Your task to perform on an android device: Clear the cart on target. Search for "duracell triple a" on target, select the first entry, add it to the cart, then select checkout. Image 0: 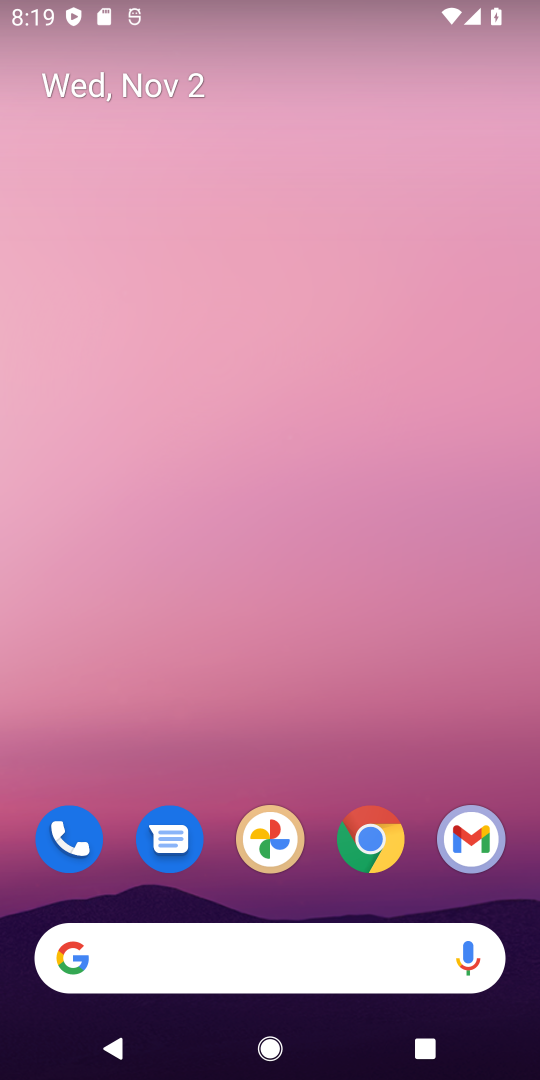
Step 0: click (370, 840)
Your task to perform on an android device: Clear the cart on target. Search for "duracell triple a" on target, select the first entry, add it to the cart, then select checkout. Image 1: 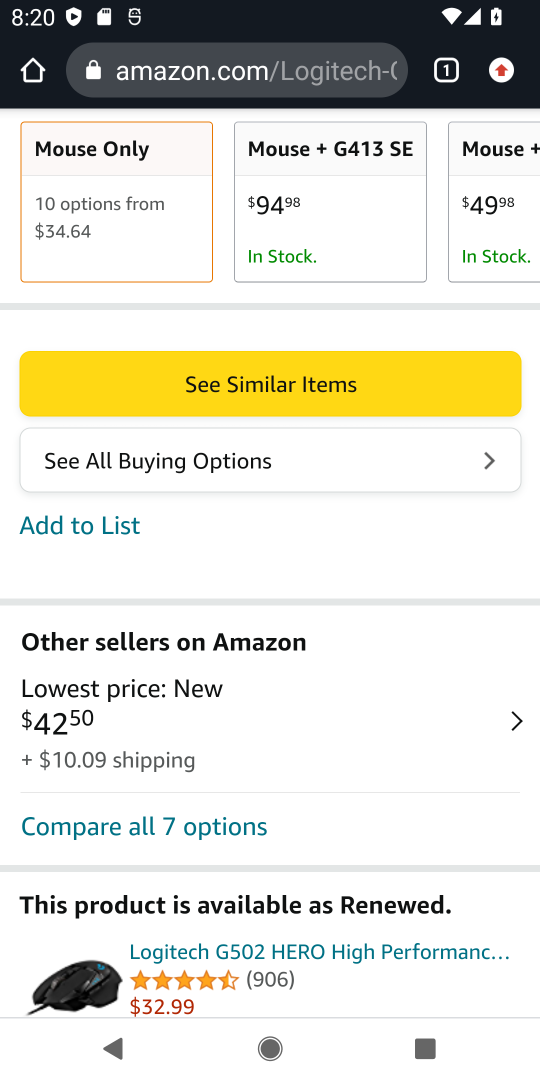
Step 1: click (328, 67)
Your task to perform on an android device: Clear the cart on target. Search for "duracell triple a" on target, select the first entry, add it to the cart, then select checkout. Image 2: 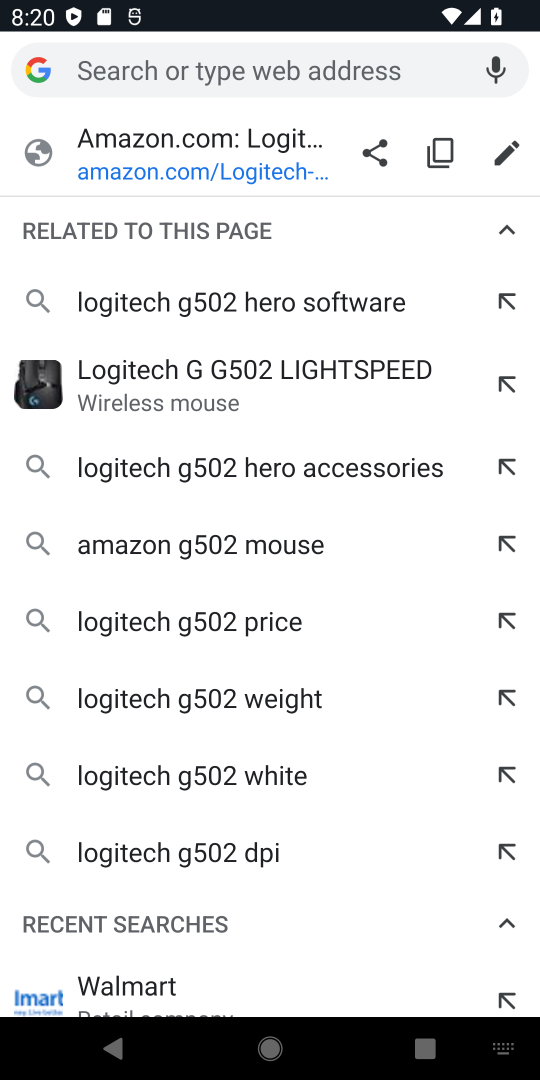
Step 2: type "target"
Your task to perform on an android device: Clear the cart on target. Search for "duracell triple a" on target, select the first entry, add it to the cart, then select checkout. Image 3: 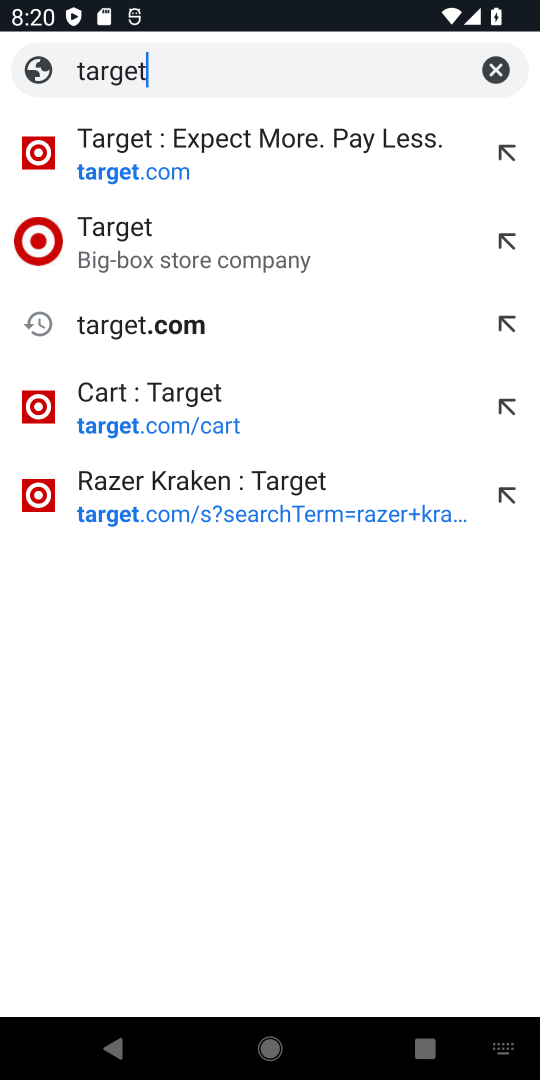
Step 3: click (168, 243)
Your task to perform on an android device: Clear the cart on target. Search for "duracell triple a" on target, select the first entry, add it to the cart, then select checkout. Image 4: 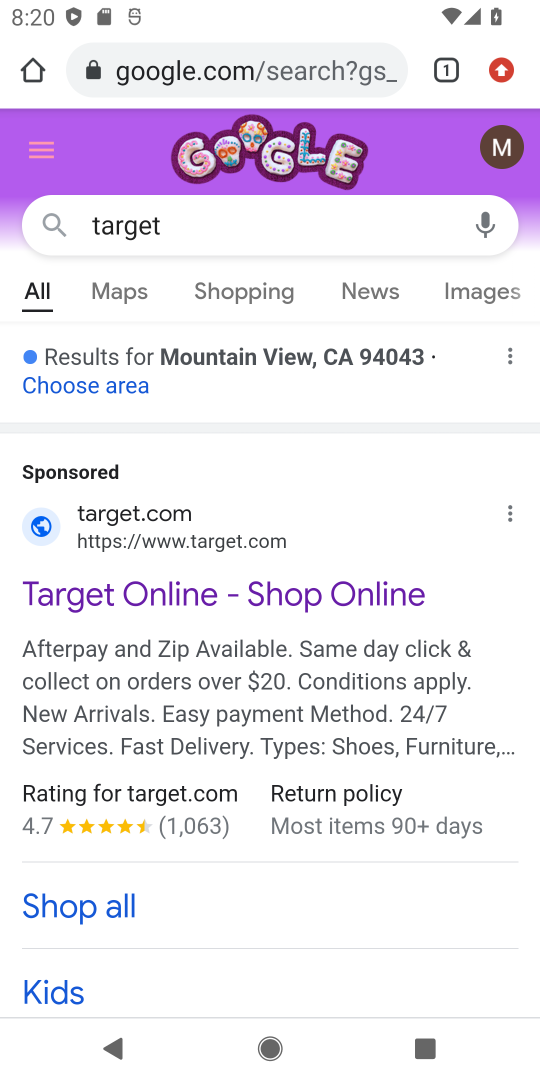
Step 4: drag from (284, 897) to (303, 434)
Your task to perform on an android device: Clear the cart on target. Search for "duracell triple a" on target, select the first entry, add it to the cart, then select checkout. Image 5: 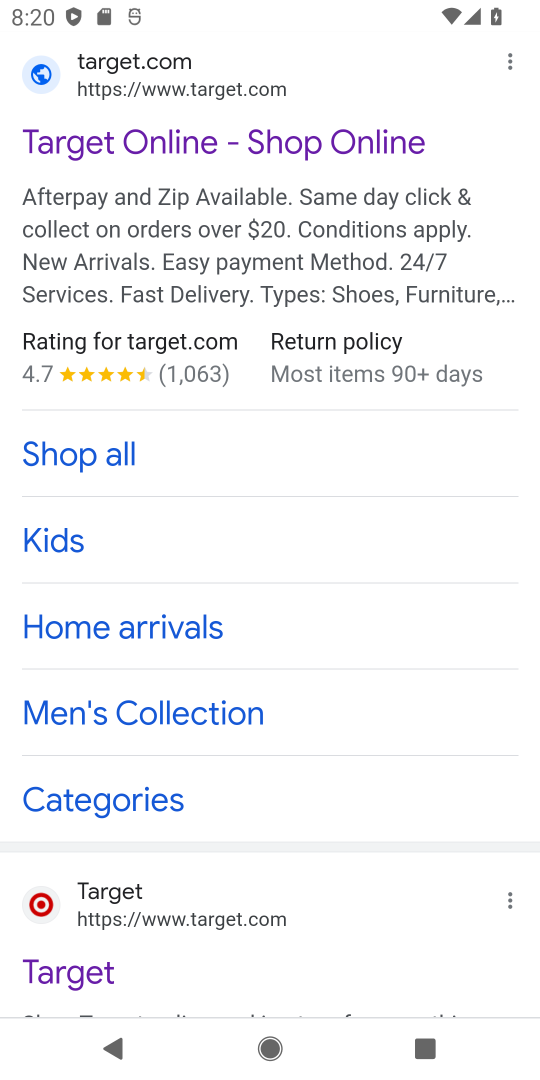
Step 5: drag from (248, 967) to (317, 583)
Your task to perform on an android device: Clear the cart on target. Search for "duracell triple a" on target, select the first entry, add it to the cart, then select checkout. Image 6: 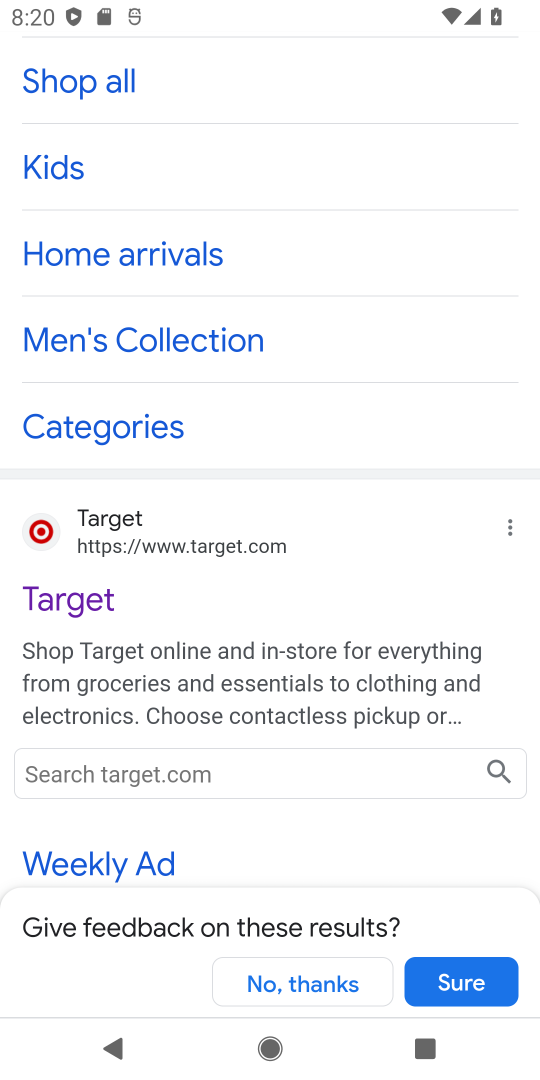
Step 6: click (226, 582)
Your task to perform on an android device: Clear the cart on target. Search for "duracell triple a" on target, select the first entry, add it to the cart, then select checkout. Image 7: 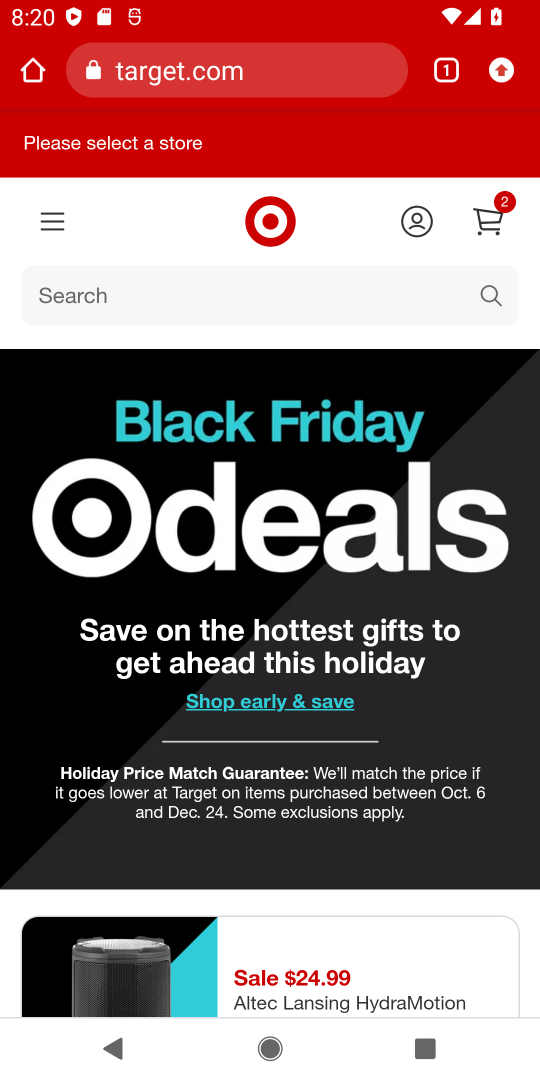
Step 7: click (493, 218)
Your task to perform on an android device: Clear the cart on target. Search for "duracell triple a" on target, select the first entry, add it to the cart, then select checkout. Image 8: 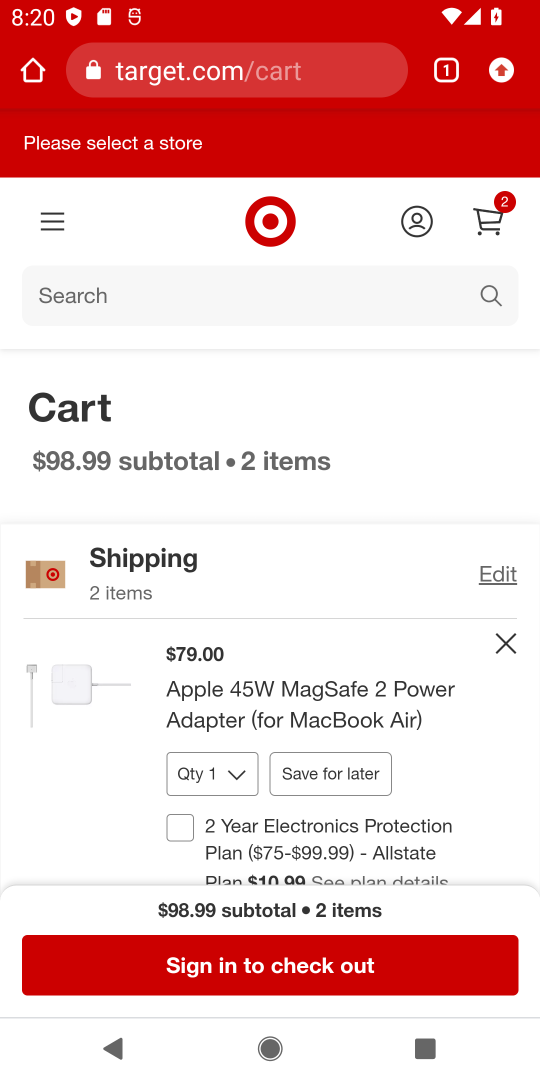
Step 8: click (506, 636)
Your task to perform on an android device: Clear the cart on target. Search for "duracell triple a" on target, select the first entry, add it to the cart, then select checkout. Image 9: 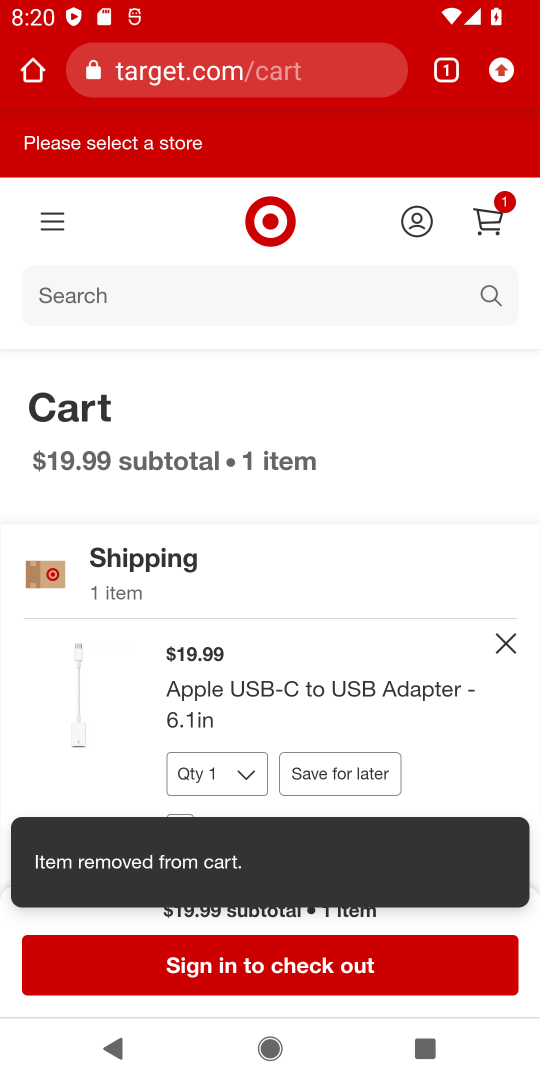
Step 9: click (505, 643)
Your task to perform on an android device: Clear the cart on target. Search for "duracell triple a" on target, select the first entry, add it to the cart, then select checkout. Image 10: 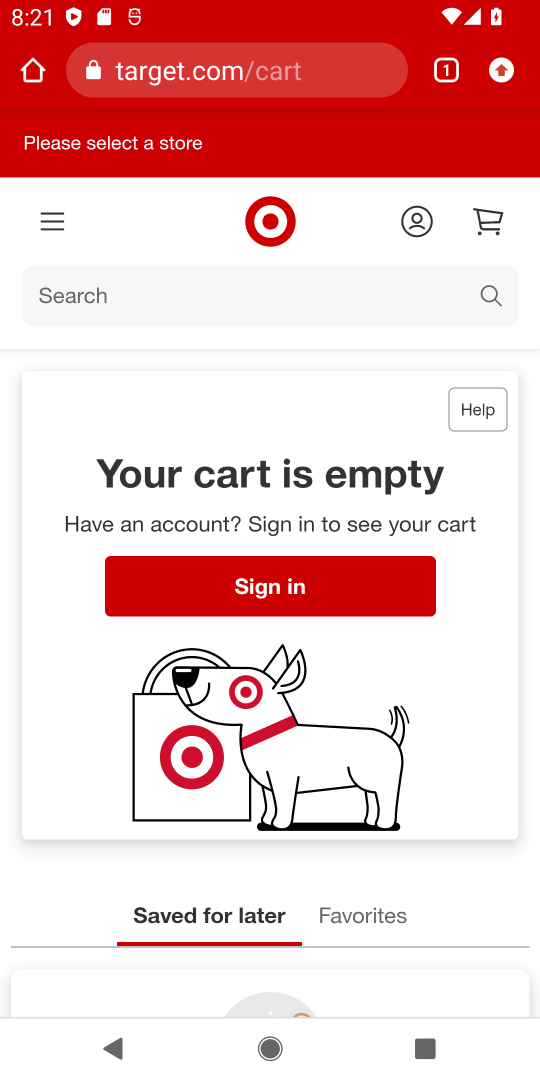
Step 10: click (228, 299)
Your task to perform on an android device: Clear the cart on target. Search for "duracell triple a" on target, select the first entry, add it to the cart, then select checkout. Image 11: 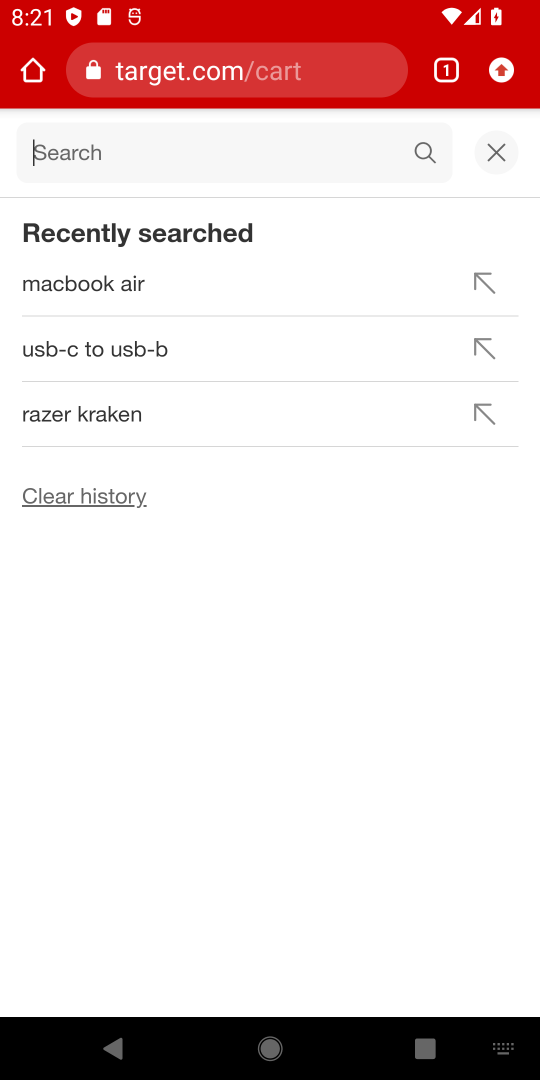
Step 11: type "duracell triple a"
Your task to perform on an android device: Clear the cart on target. Search for "duracell triple a" on target, select the first entry, add it to the cart, then select checkout. Image 12: 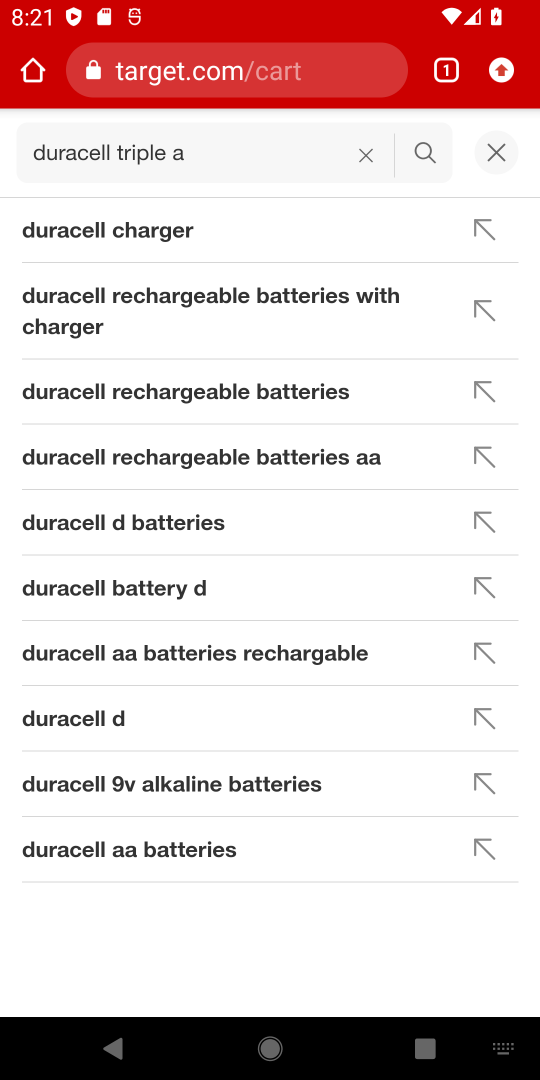
Step 12: click (424, 159)
Your task to perform on an android device: Clear the cart on target. Search for "duracell triple a" on target, select the first entry, add it to the cart, then select checkout. Image 13: 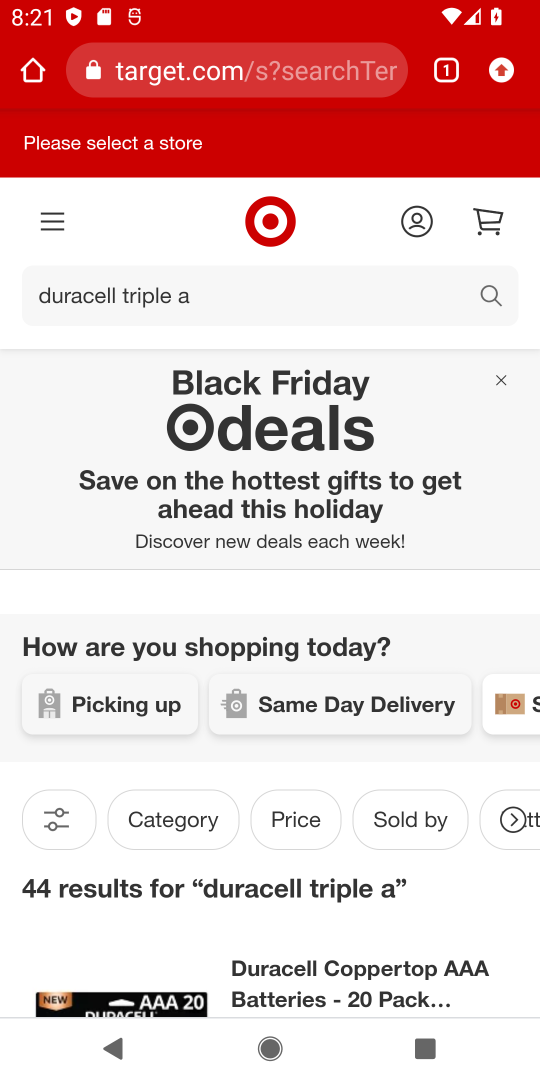
Step 13: click (407, 973)
Your task to perform on an android device: Clear the cart on target. Search for "duracell triple a" on target, select the first entry, add it to the cart, then select checkout. Image 14: 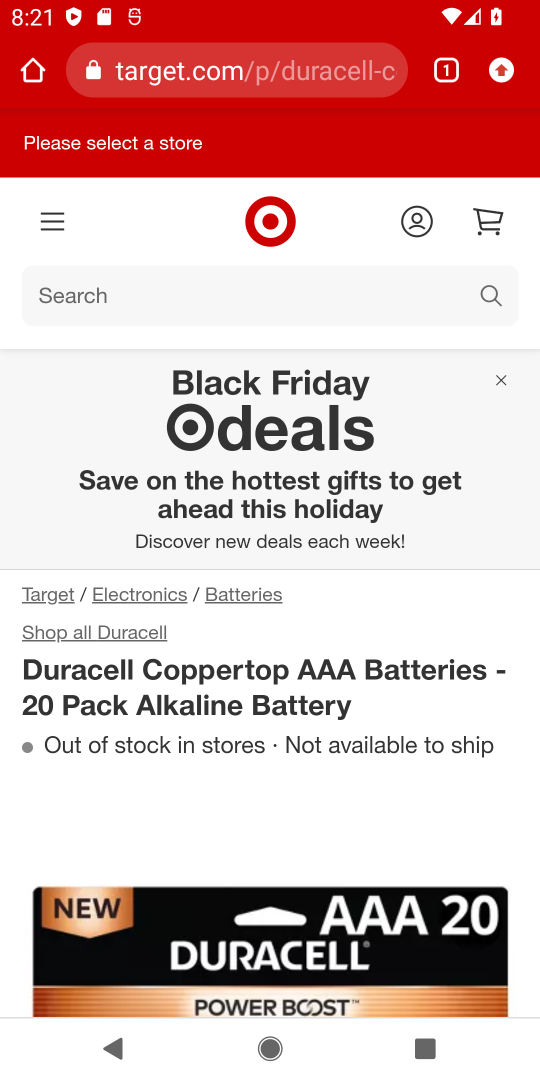
Step 14: drag from (379, 846) to (368, 502)
Your task to perform on an android device: Clear the cart on target. Search for "duracell triple a" on target, select the first entry, add it to the cart, then select checkout. Image 15: 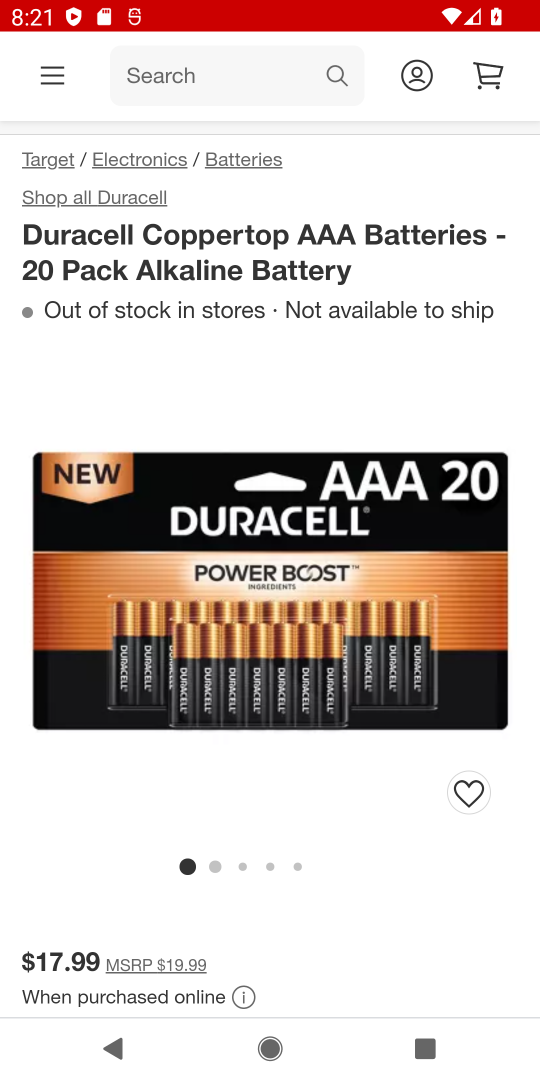
Step 15: drag from (315, 917) to (352, 522)
Your task to perform on an android device: Clear the cart on target. Search for "duracell triple a" on target, select the first entry, add it to the cart, then select checkout. Image 16: 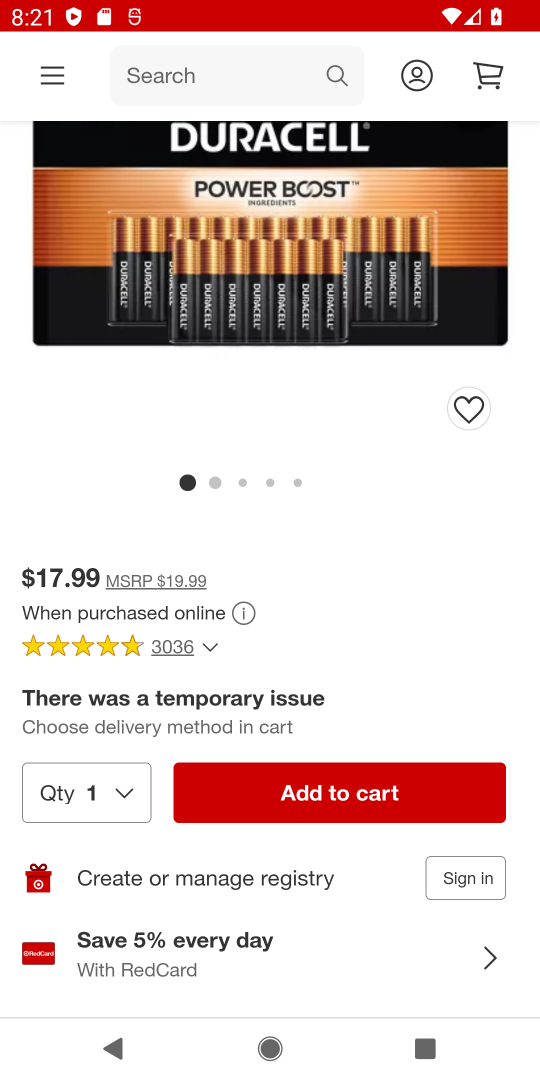
Step 16: click (329, 803)
Your task to perform on an android device: Clear the cart on target. Search for "duracell triple a" on target, select the first entry, add it to the cart, then select checkout. Image 17: 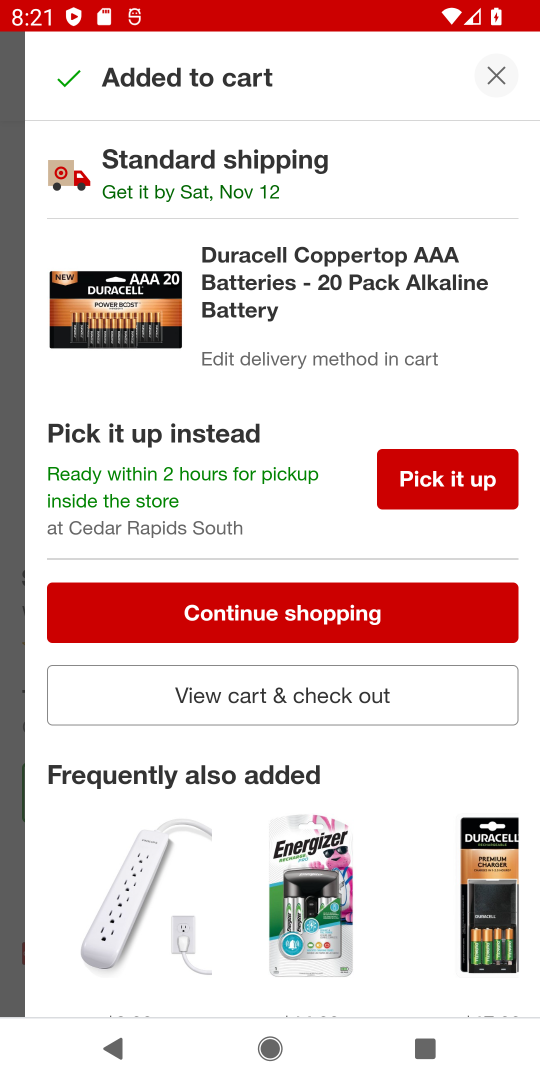
Step 17: click (325, 689)
Your task to perform on an android device: Clear the cart on target. Search for "duracell triple a" on target, select the first entry, add it to the cart, then select checkout. Image 18: 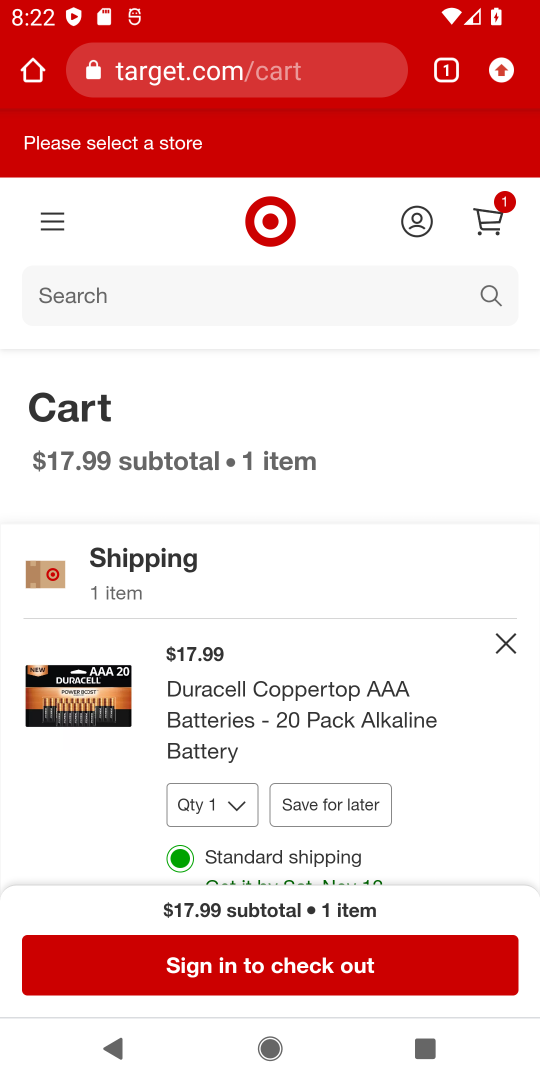
Step 18: click (285, 963)
Your task to perform on an android device: Clear the cart on target. Search for "duracell triple a" on target, select the first entry, add it to the cart, then select checkout. Image 19: 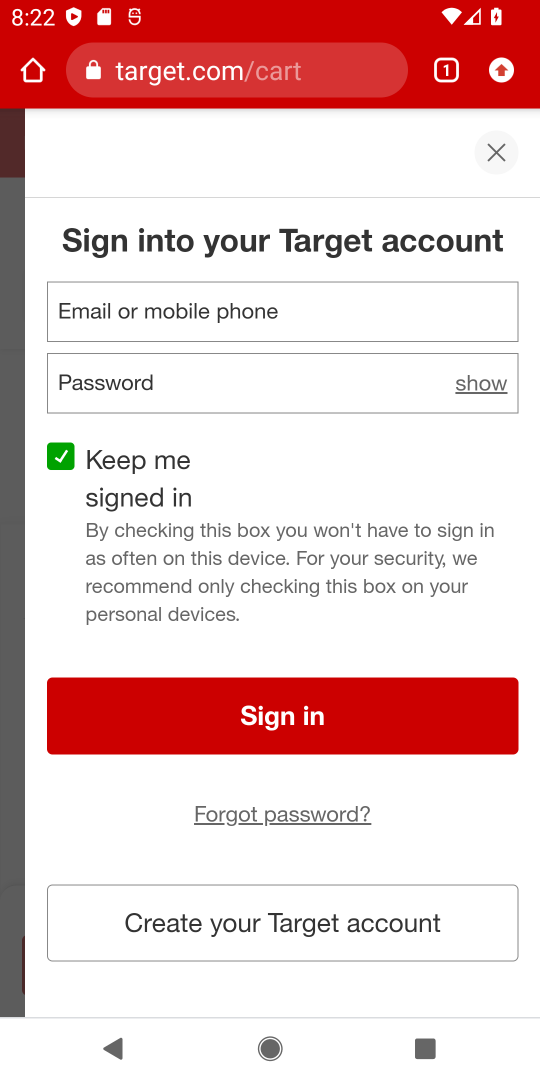
Step 19: task complete